Your task to perform on an android device: manage bookmarks in the chrome app Image 0: 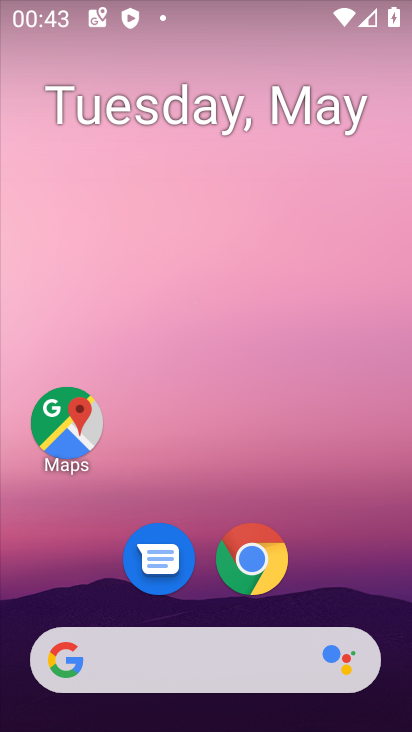
Step 0: click (270, 576)
Your task to perform on an android device: manage bookmarks in the chrome app Image 1: 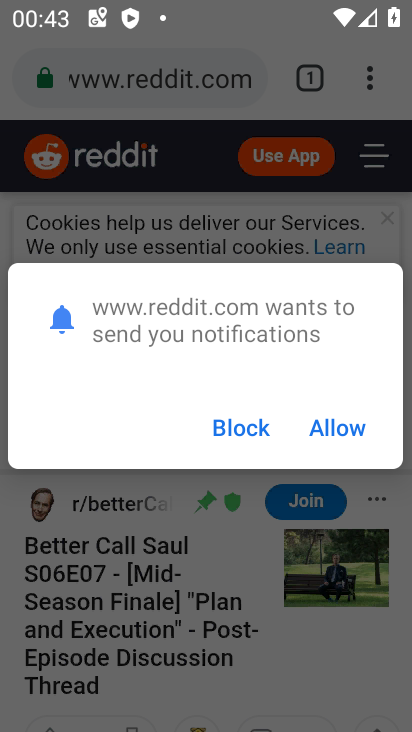
Step 1: click (375, 69)
Your task to perform on an android device: manage bookmarks in the chrome app Image 2: 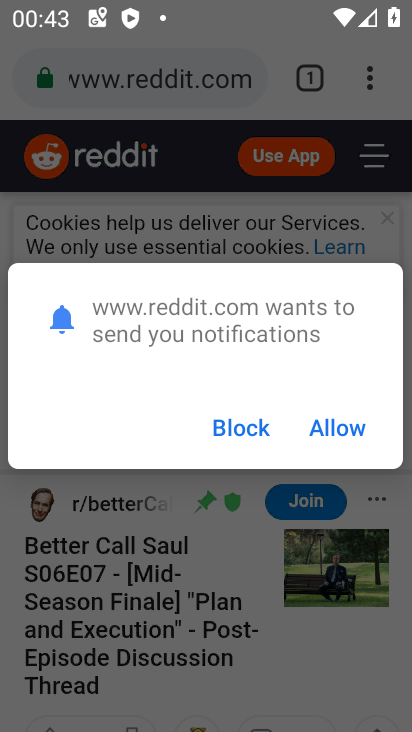
Step 2: click (312, 420)
Your task to perform on an android device: manage bookmarks in the chrome app Image 3: 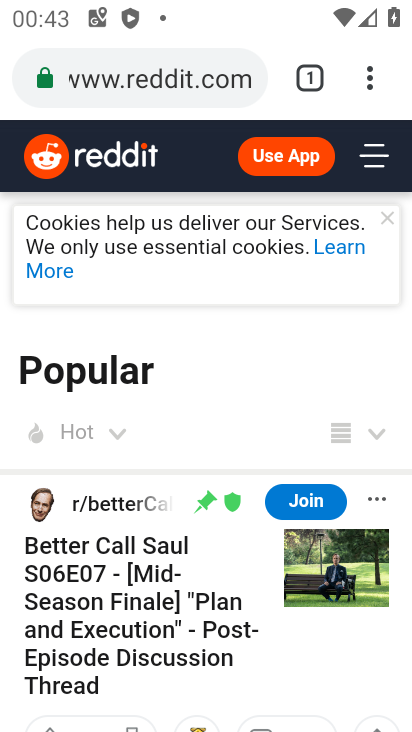
Step 3: click (362, 78)
Your task to perform on an android device: manage bookmarks in the chrome app Image 4: 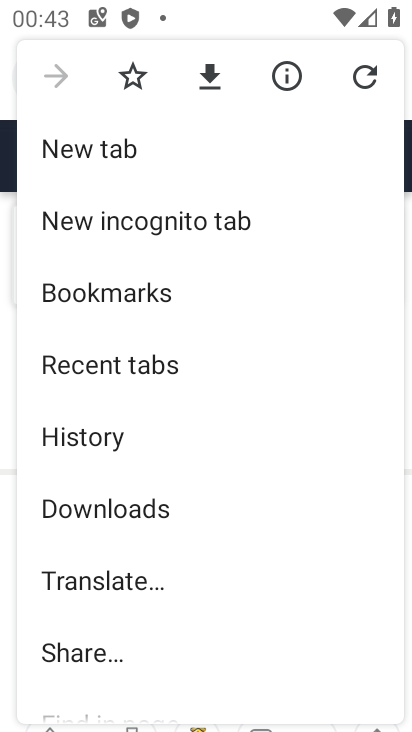
Step 4: click (235, 316)
Your task to perform on an android device: manage bookmarks in the chrome app Image 5: 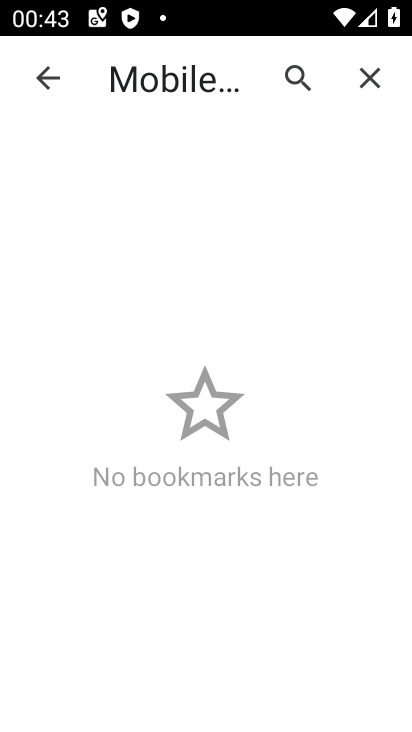
Step 5: task complete